Your task to perform on an android device: Go to accessibility settings Image 0: 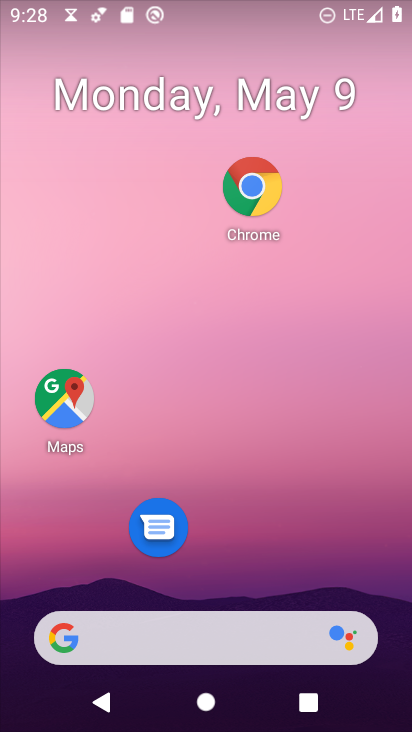
Step 0: drag from (237, 561) to (280, 146)
Your task to perform on an android device: Go to accessibility settings Image 1: 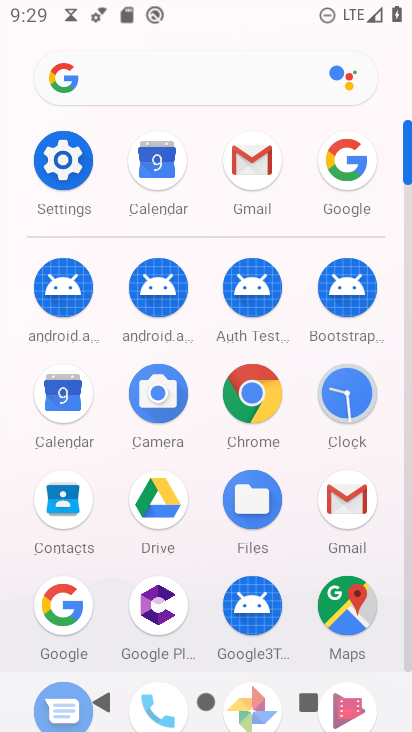
Step 1: click (57, 151)
Your task to perform on an android device: Go to accessibility settings Image 2: 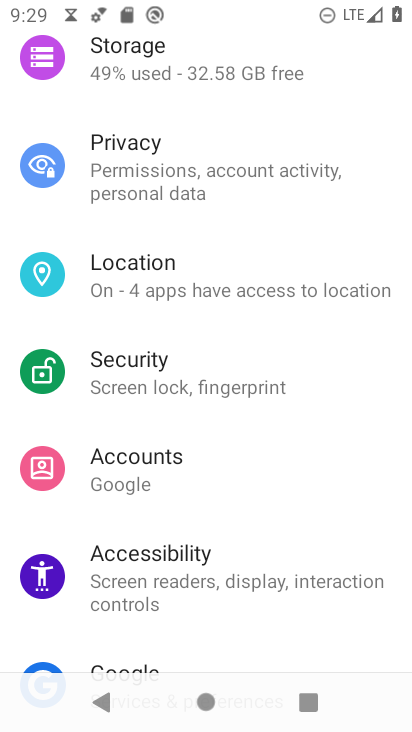
Step 2: click (140, 555)
Your task to perform on an android device: Go to accessibility settings Image 3: 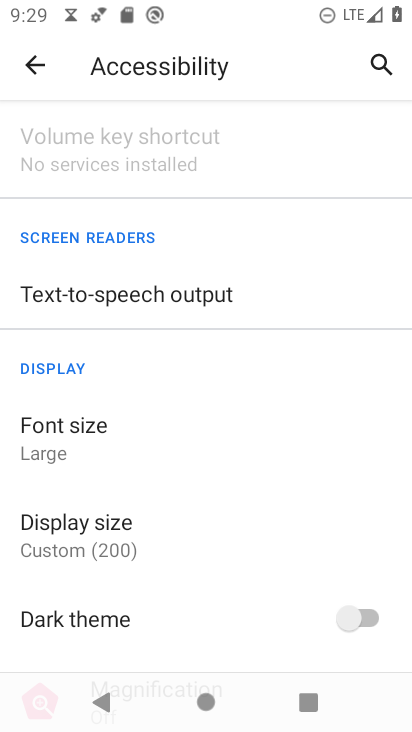
Step 3: task complete